Your task to perform on an android device: What's the weather? Image 0: 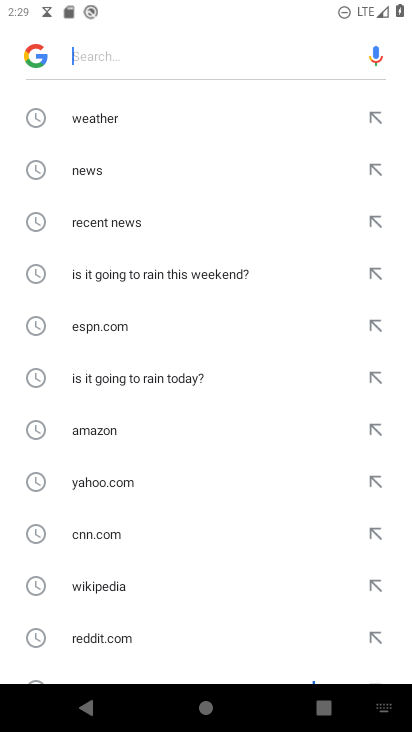
Step 0: click (126, 115)
Your task to perform on an android device: What's the weather? Image 1: 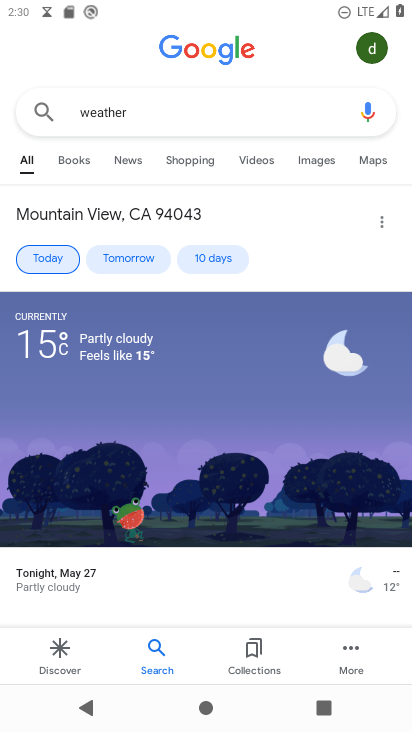
Step 1: task complete